Your task to perform on an android device: turn on translation in the chrome app Image 0: 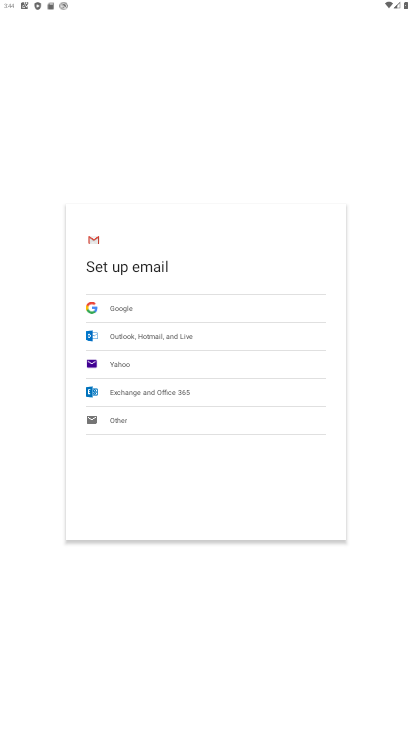
Step 0: press home button
Your task to perform on an android device: turn on translation in the chrome app Image 1: 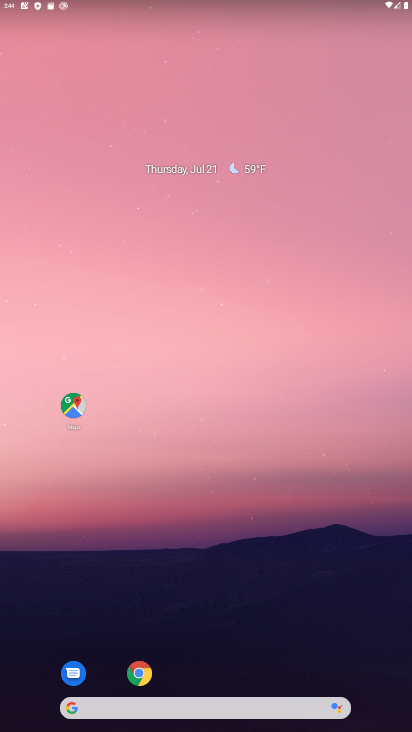
Step 1: click (138, 673)
Your task to perform on an android device: turn on translation in the chrome app Image 2: 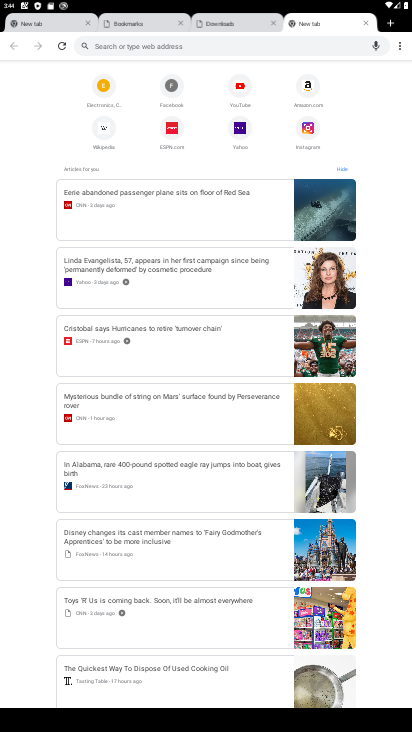
Step 2: click (396, 49)
Your task to perform on an android device: turn on translation in the chrome app Image 3: 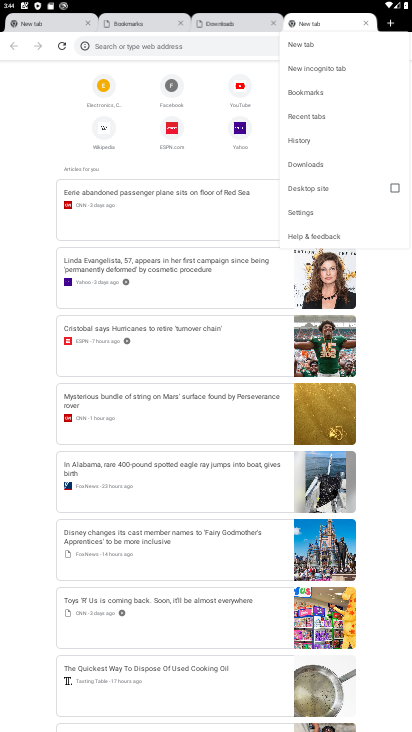
Step 3: click (303, 210)
Your task to perform on an android device: turn on translation in the chrome app Image 4: 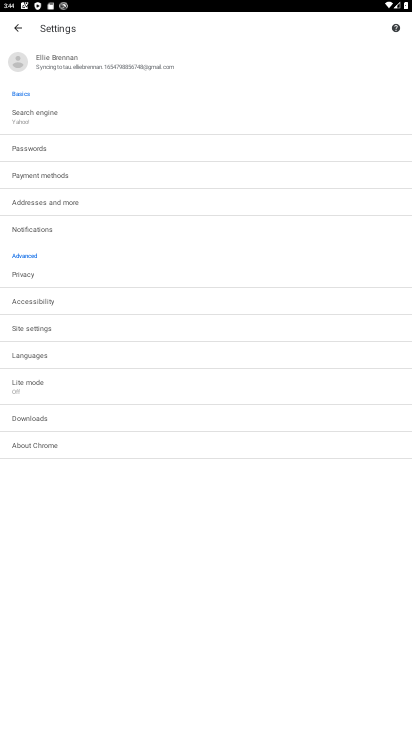
Step 4: click (34, 349)
Your task to perform on an android device: turn on translation in the chrome app Image 5: 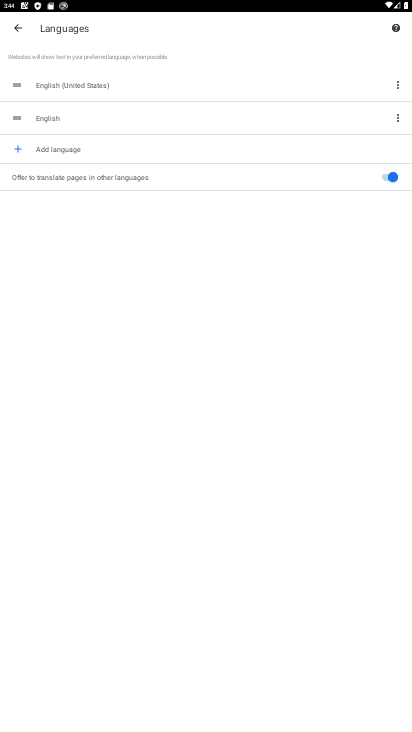
Step 5: task complete